Your task to perform on an android device: Clear all items from cart on bestbuy. Search for usb-c to usb-b on bestbuy, select the first entry, and add it to the cart. Image 0: 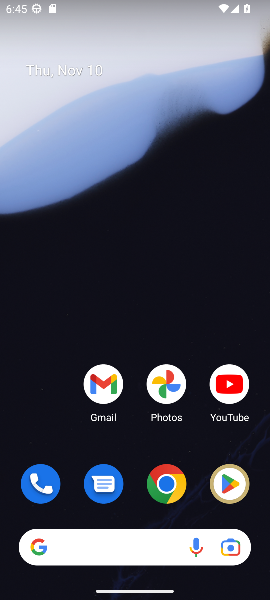
Step 0: click (167, 483)
Your task to perform on an android device: Clear all items from cart on bestbuy. Search for usb-c to usb-b on bestbuy, select the first entry, and add it to the cart. Image 1: 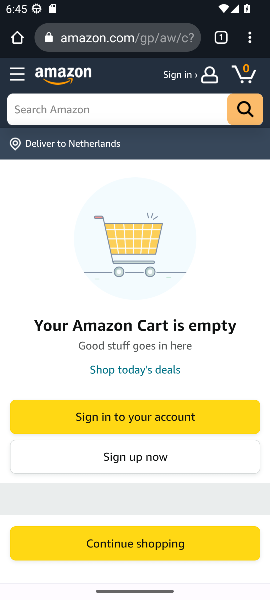
Step 1: click (126, 34)
Your task to perform on an android device: Clear all items from cart on bestbuy. Search for usb-c to usb-b on bestbuy, select the first entry, and add it to the cart. Image 2: 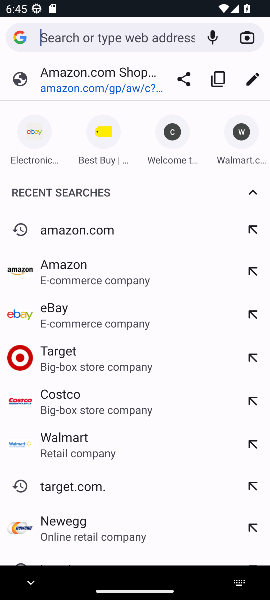
Step 2: click (100, 137)
Your task to perform on an android device: Clear all items from cart on bestbuy. Search for usb-c to usb-b on bestbuy, select the first entry, and add it to the cart. Image 3: 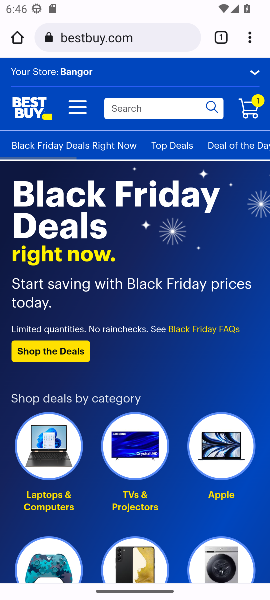
Step 3: click (252, 115)
Your task to perform on an android device: Clear all items from cart on bestbuy. Search for usb-c to usb-b on bestbuy, select the first entry, and add it to the cart. Image 4: 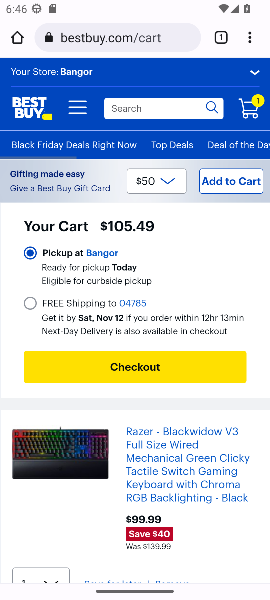
Step 4: drag from (152, 379) to (128, 163)
Your task to perform on an android device: Clear all items from cart on bestbuy. Search for usb-c to usb-b on bestbuy, select the first entry, and add it to the cart. Image 5: 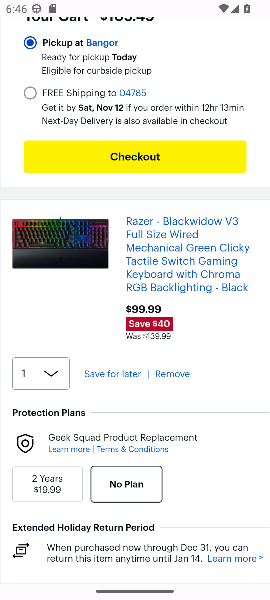
Step 5: click (162, 376)
Your task to perform on an android device: Clear all items from cart on bestbuy. Search for usb-c to usb-b on bestbuy, select the first entry, and add it to the cart. Image 6: 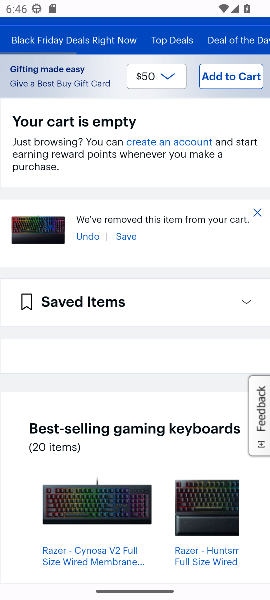
Step 6: drag from (182, 191) to (137, 440)
Your task to perform on an android device: Clear all items from cart on bestbuy. Search for usb-c to usb-b on bestbuy, select the first entry, and add it to the cart. Image 7: 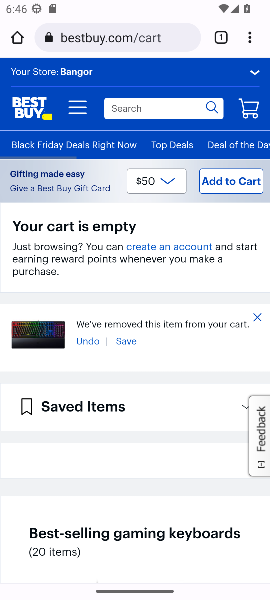
Step 7: click (151, 102)
Your task to perform on an android device: Clear all items from cart on bestbuy. Search for usb-c to usb-b on bestbuy, select the first entry, and add it to the cart. Image 8: 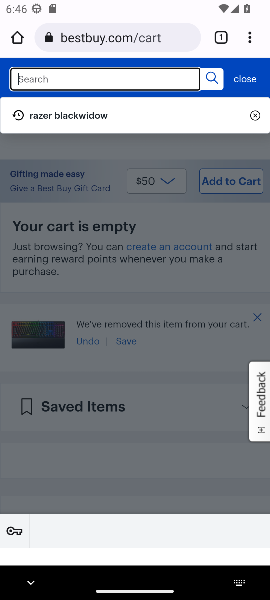
Step 8: type "usb-c to usb-b"
Your task to perform on an android device: Clear all items from cart on bestbuy. Search for usb-c to usb-b on bestbuy, select the first entry, and add it to the cart. Image 9: 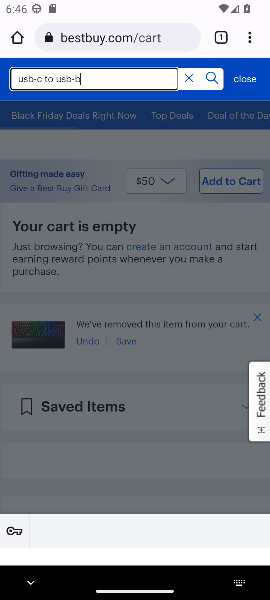
Step 9: click (209, 81)
Your task to perform on an android device: Clear all items from cart on bestbuy. Search for usb-c to usb-b on bestbuy, select the first entry, and add it to the cart. Image 10: 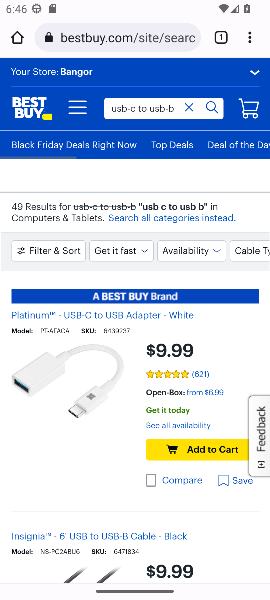
Step 10: task complete